Your task to perform on an android device: remove spam from my inbox in the gmail app Image 0: 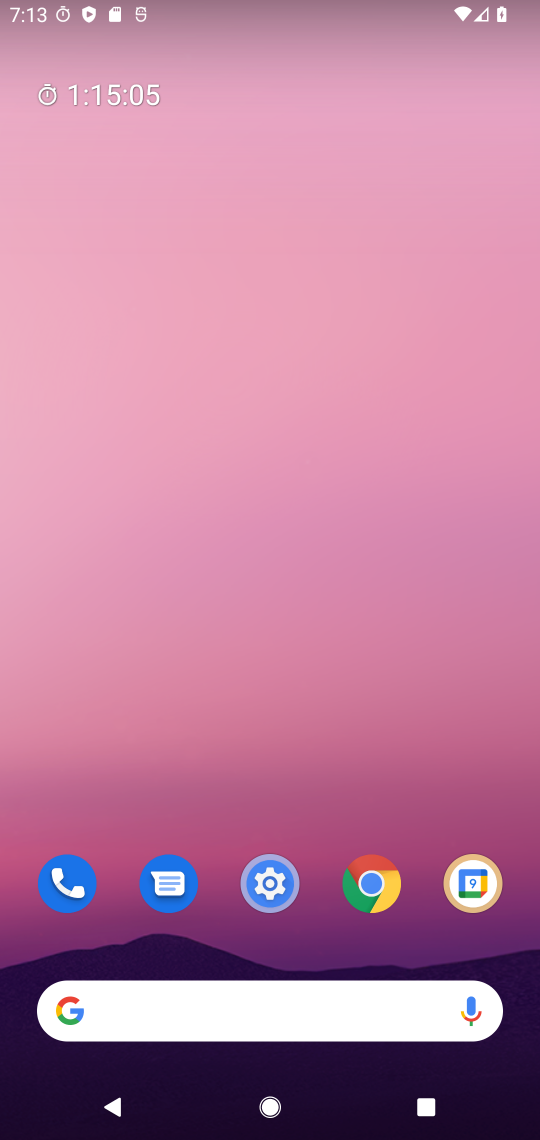
Step 0: drag from (276, 758) to (276, 217)
Your task to perform on an android device: remove spam from my inbox in the gmail app Image 1: 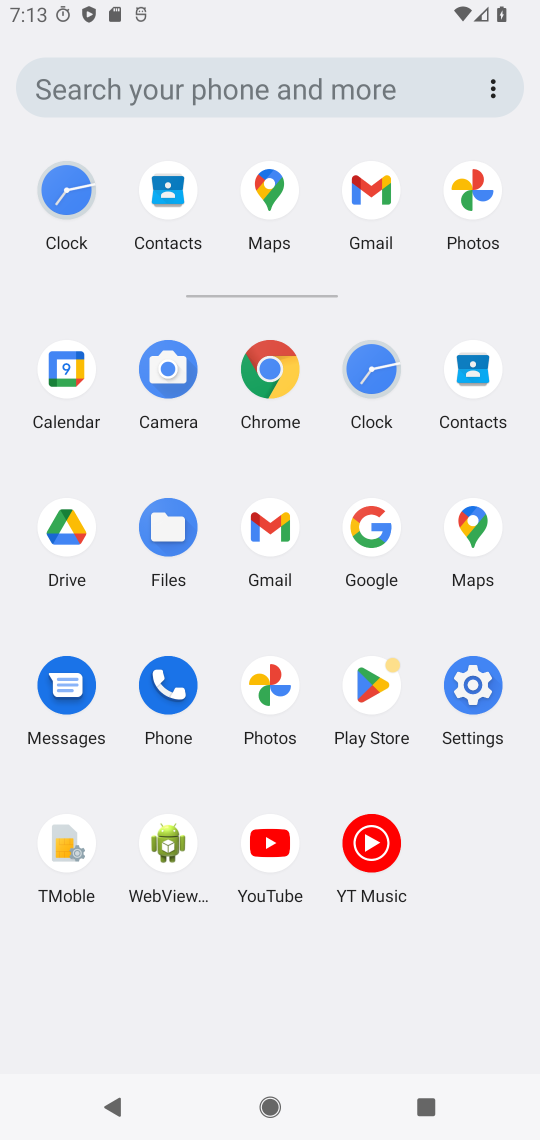
Step 1: click (372, 240)
Your task to perform on an android device: remove spam from my inbox in the gmail app Image 2: 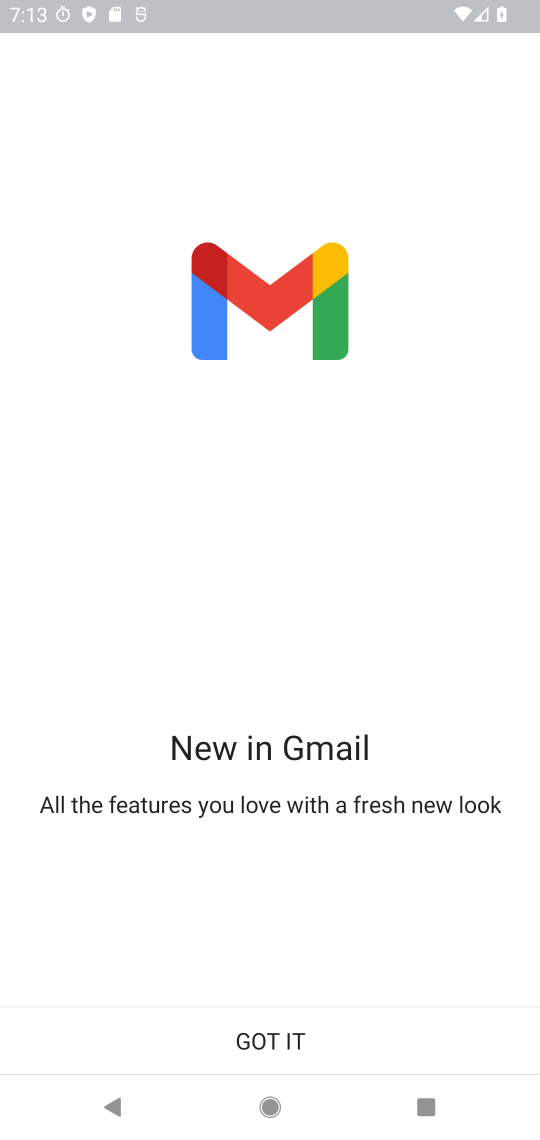
Step 2: click (357, 1017)
Your task to perform on an android device: remove spam from my inbox in the gmail app Image 3: 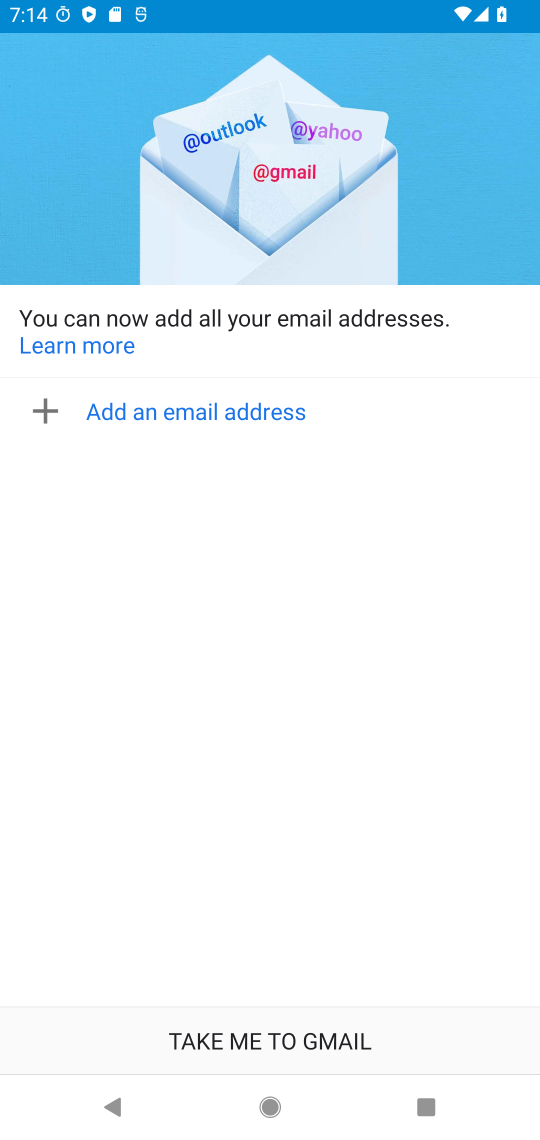
Step 3: task complete